Your task to perform on an android device: What's the US dollar exchange rate against the Canadian Dollar? Image 0: 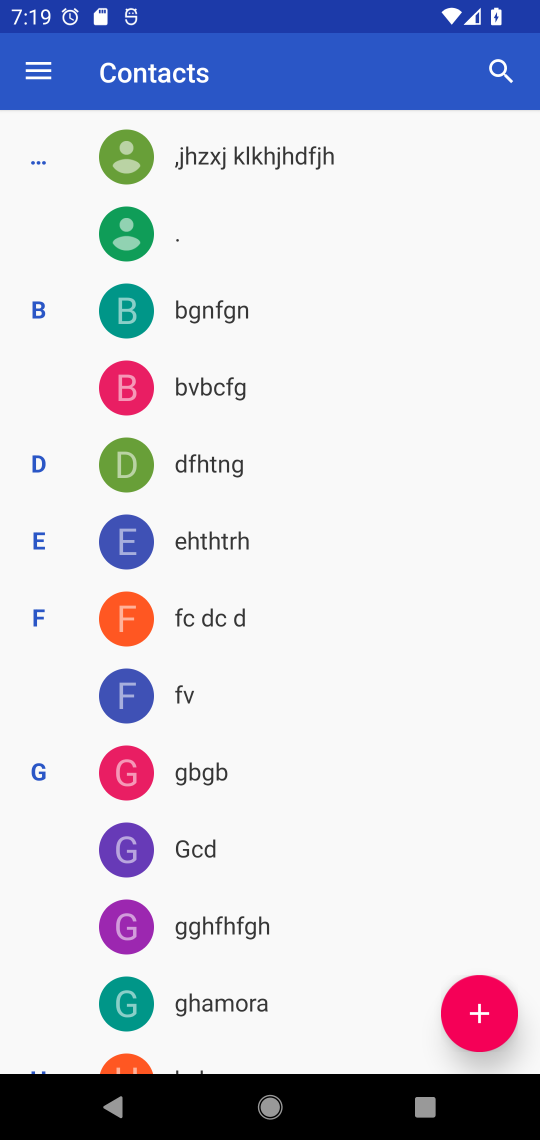
Step 0: press home button
Your task to perform on an android device: What's the US dollar exchange rate against the Canadian Dollar? Image 1: 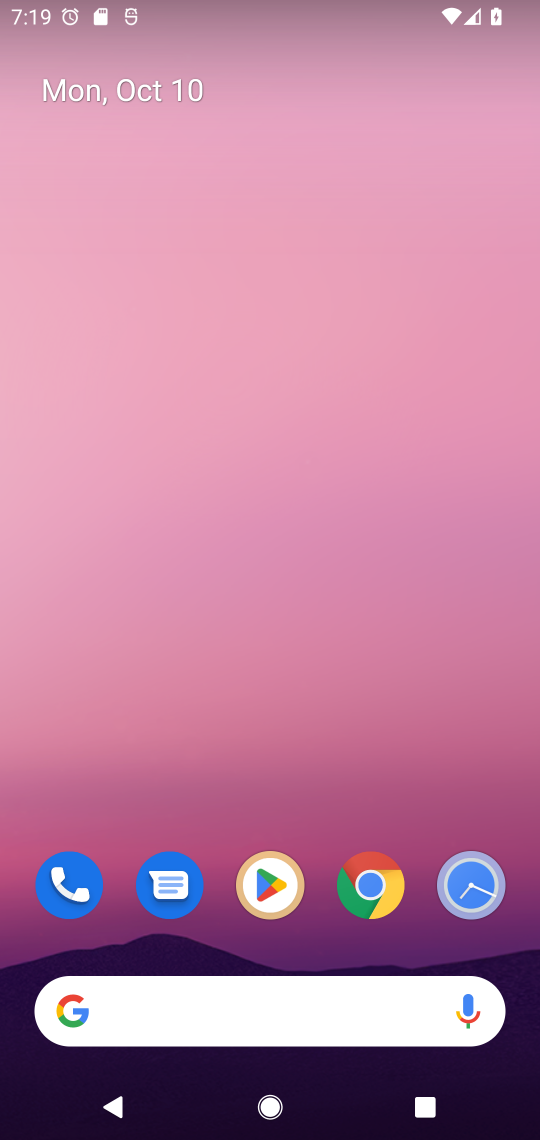
Step 1: click (358, 884)
Your task to perform on an android device: What's the US dollar exchange rate against the Canadian Dollar? Image 2: 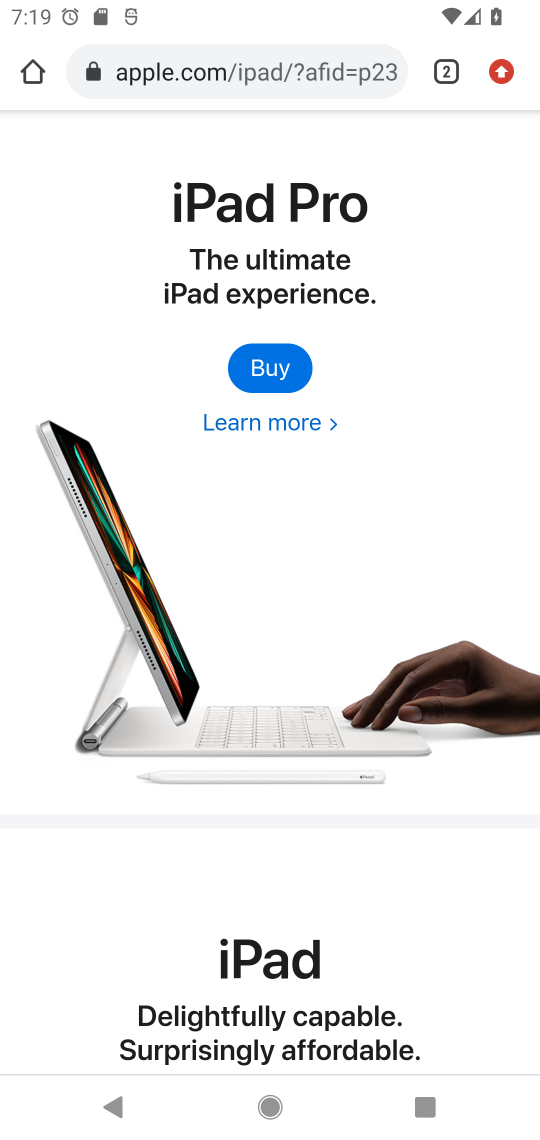
Step 2: click (232, 81)
Your task to perform on an android device: What's the US dollar exchange rate against the Canadian Dollar? Image 3: 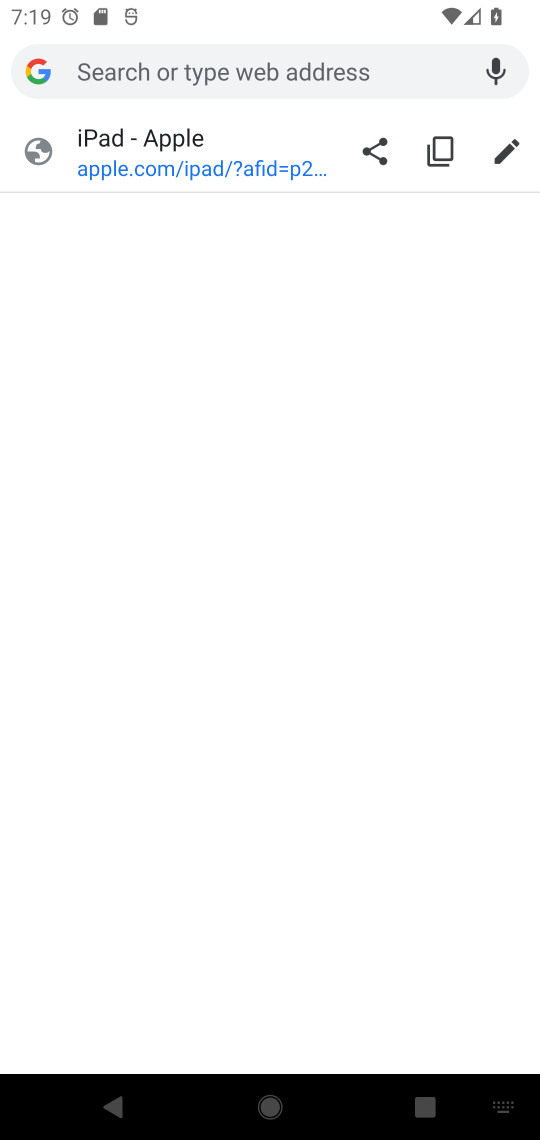
Step 3: type "US dollar exchange rate against the Canadian Dollar"
Your task to perform on an android device: What's the US dollar exchange rate against the Canadian Dollar? Image 4: 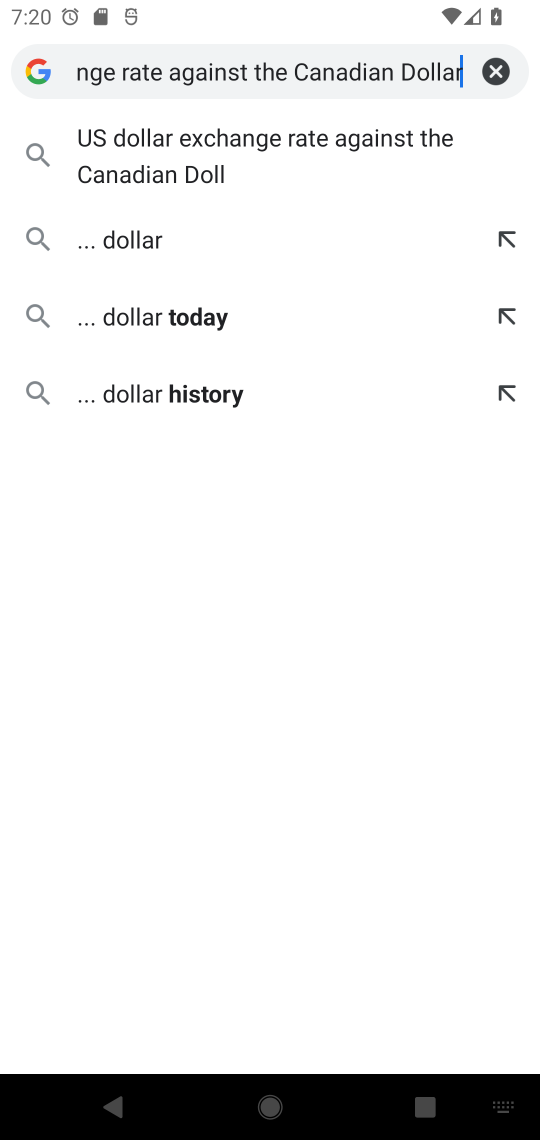
Step 4: type ""
Your task to perform on an android device: What's the US dollar exchange rate against the Canadian Dollar? Image 5: 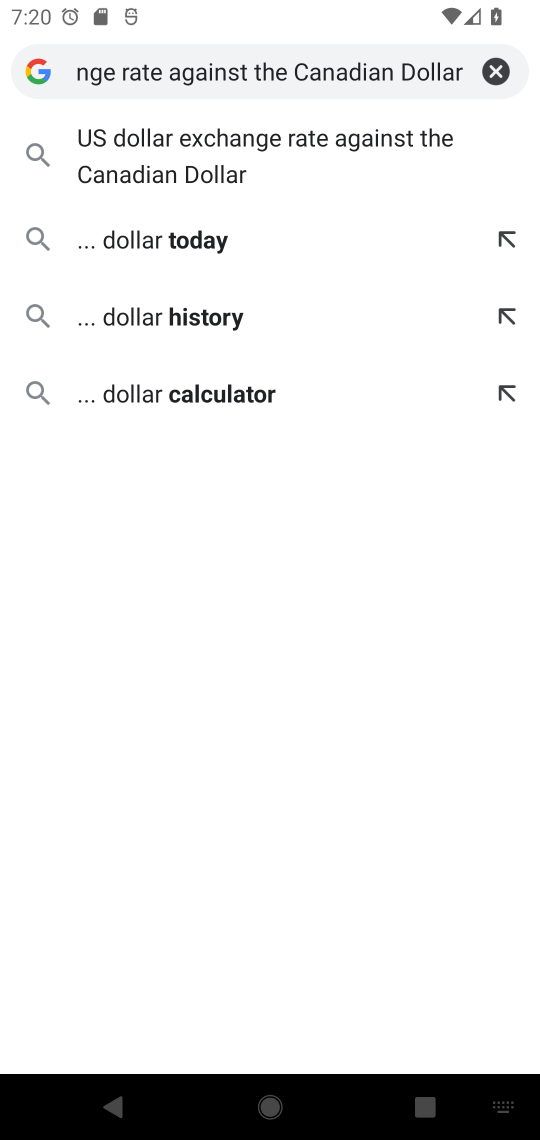
Step 5: click (256, 171)
Your task to perform on an android device: What's the US dollar exchange rate against the Canadian Dollar? Image 6: 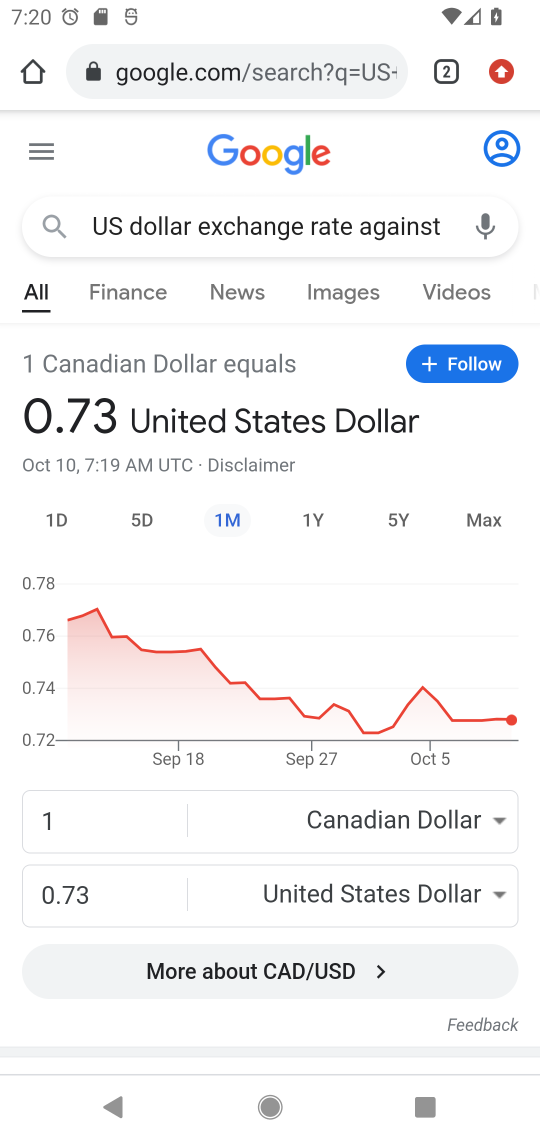
Step 6: task complete